Your task to perform on an android device: Go to Maps Image 0: 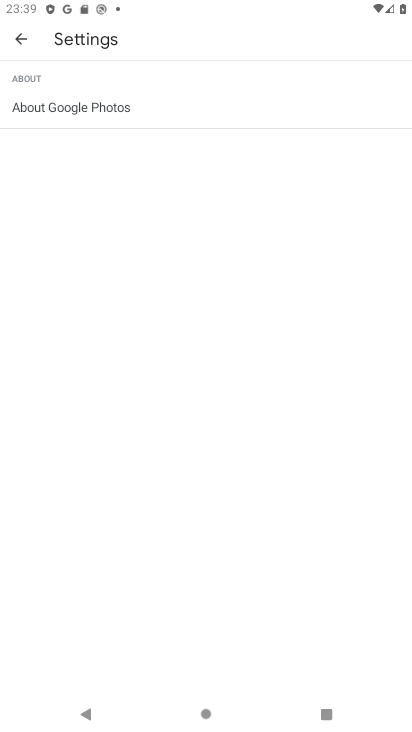
Step 0: press home button
Your task to perform on an android device: Go to Maps Image 1: 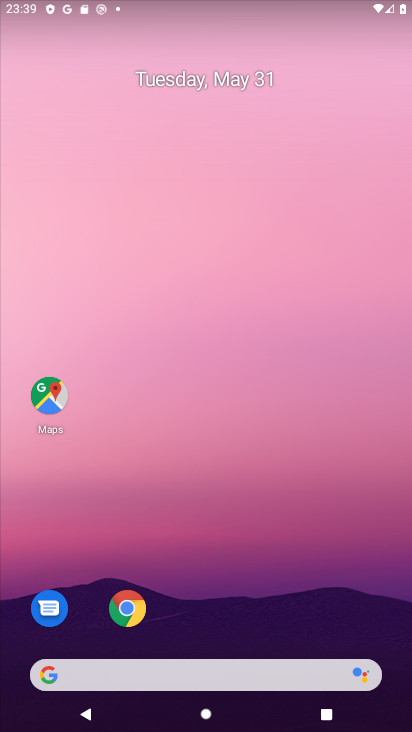
Step 1: click (46, 399)
Your task to perform on an android device: Go to Maps Image 2: 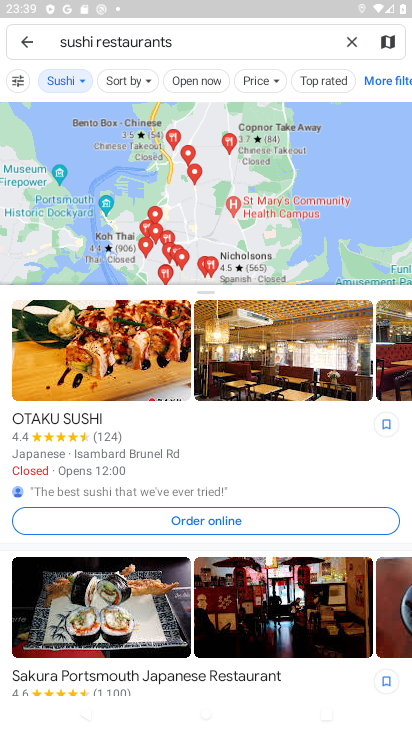
Step 2: task complete